Your task to perform on an android device: find snoozed emails in the gmail app Image 0: 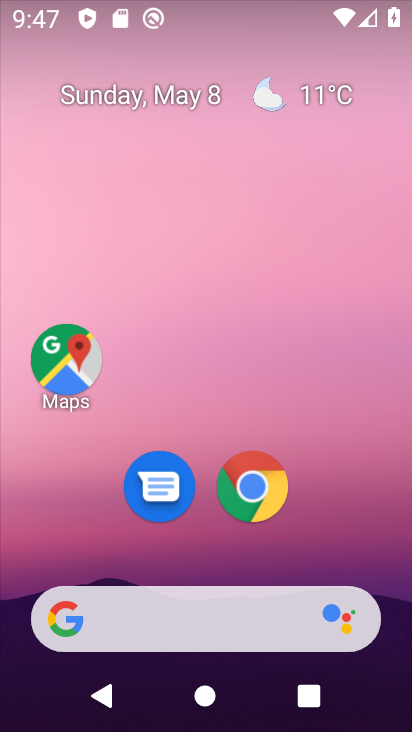
Step 0: drag from (342, 550) to (347, 20)
Your task to perform on an android device: find snoozed emails in the gmail app Image 1: 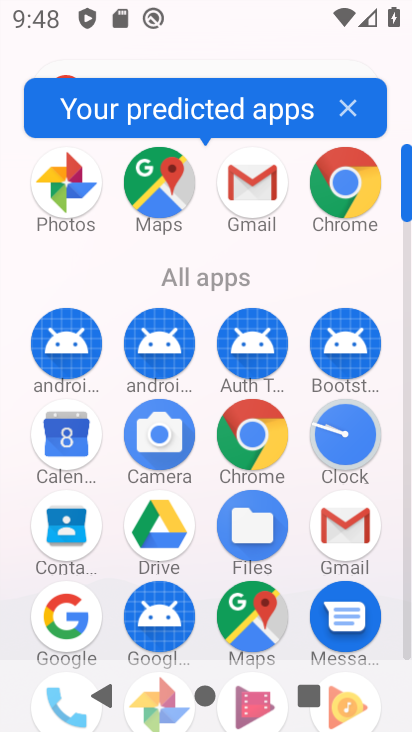
Step 1: click (257, 196)
Your task to perform on an android device: find snoozed emails in the gmail app Image 2: 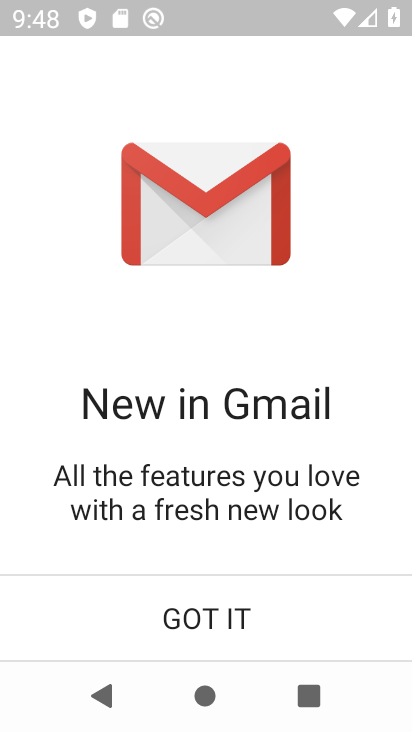
Step 2: click (263, 603)
Your task to perform on an android device: find snoozed emails in the gmail app Image 3: 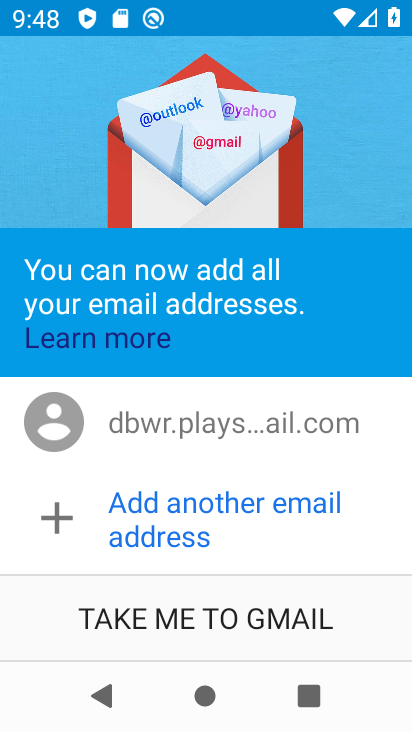
Step 3: click (263, 611)
Your task to perform on an android device: find snoozed emails in the gmail app Image 4: 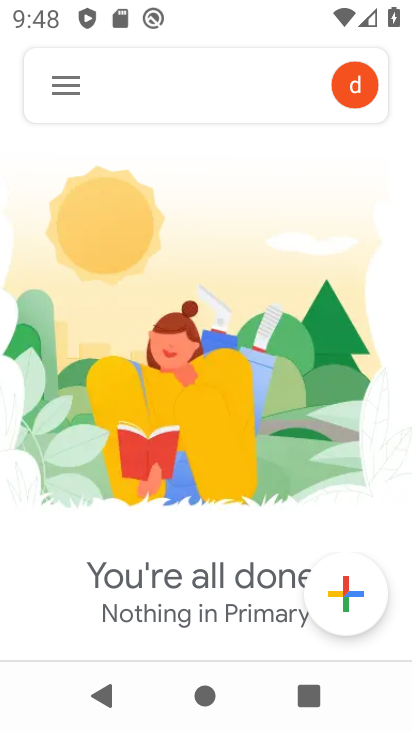
Step 4: click (70, 88)
Your task to perform on an android device: find snoozed emails in the gmail app Image 5: 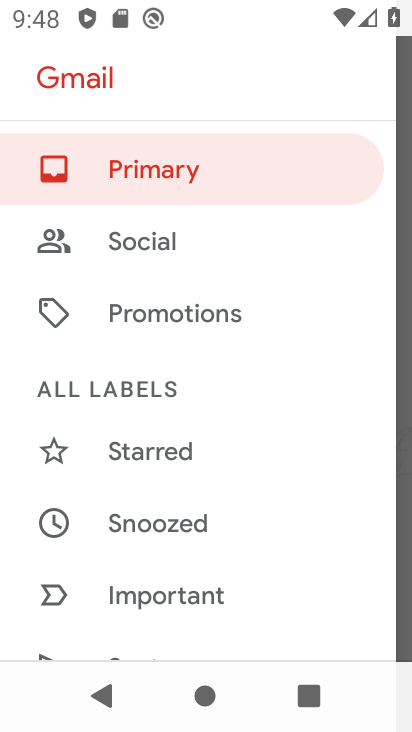
Step 5: click (174, 527)
Your task to perform on an android device: find snoozed emails in the gmail app Image 6: 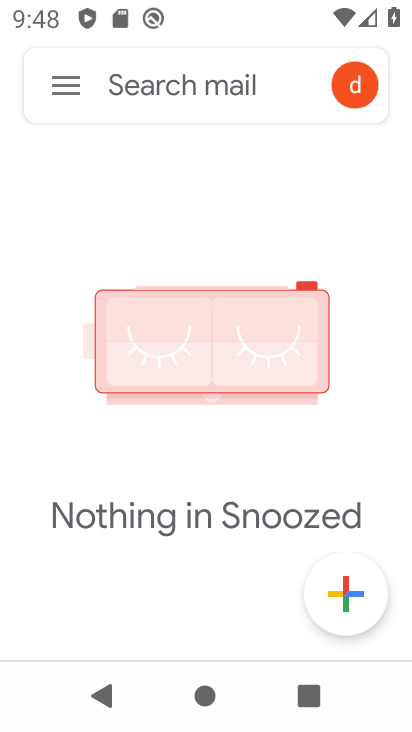
Step 6: task complete